Your task to perform on an android device: open a bookmark in the chrome app Image 0: 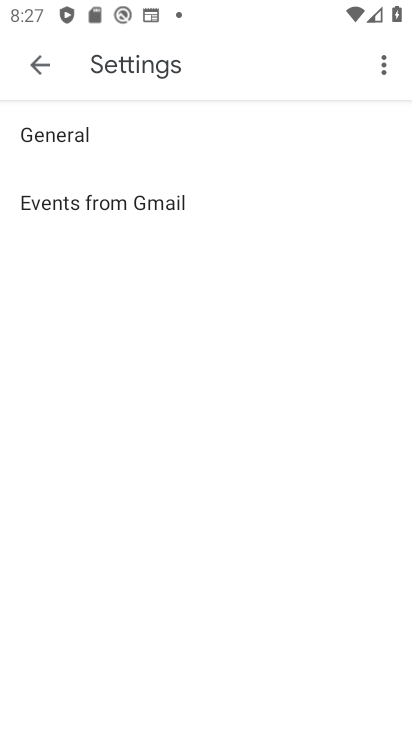
Step 0: press home button
Your task to perform on an android device: open a bookmark in the chrome app Image 1: 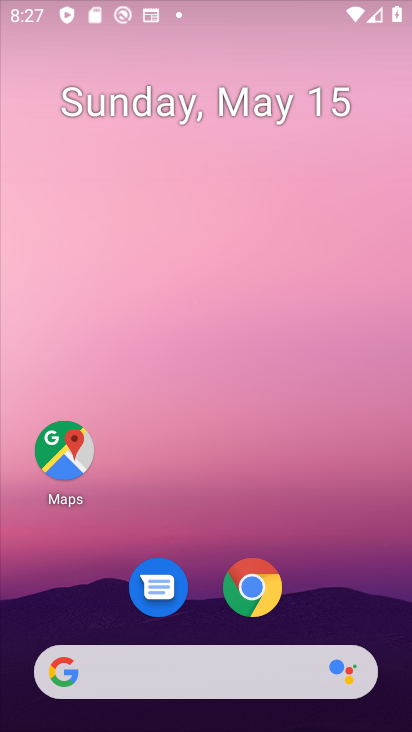
Step 1: drag from (392, 643) to (257, 11)
Your task to perform on an android device: open a bookmark in the chrome app Image 2: 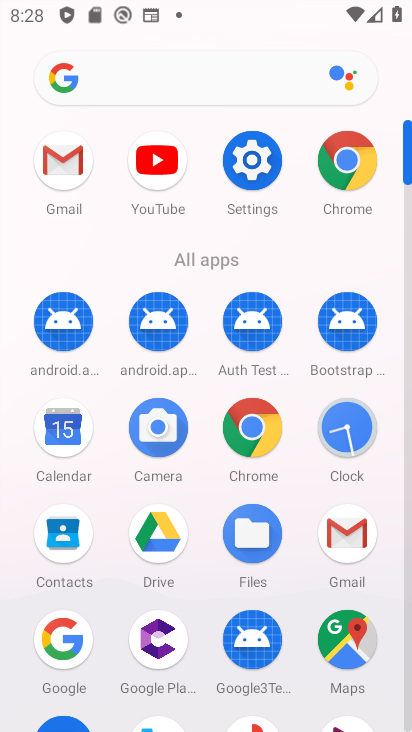
Step 2: click (349, 167)
Your task to perform on an android device: open a bookmark in the chrome app Image 3: 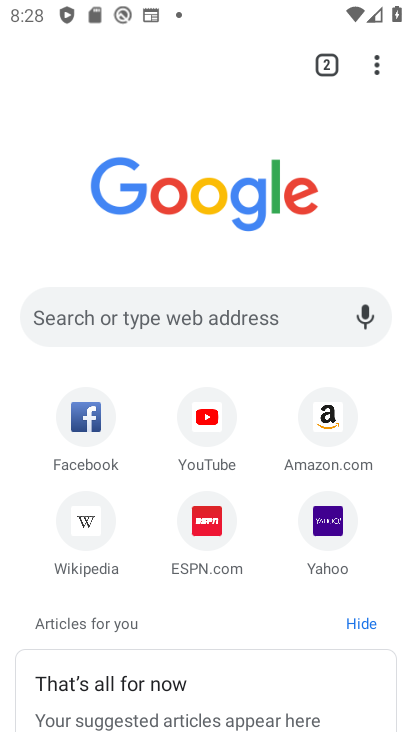
Step 3: click (375, 60)
Your task to perform on an android device: open a bookmark in the chrome app Image 4: 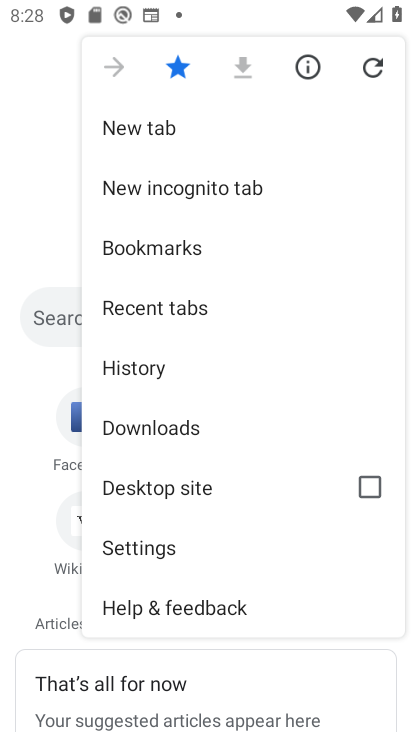
Step 4: click (210, 250)
Your task to perform on an android device: open a bookmark in the chrome app Image 5: 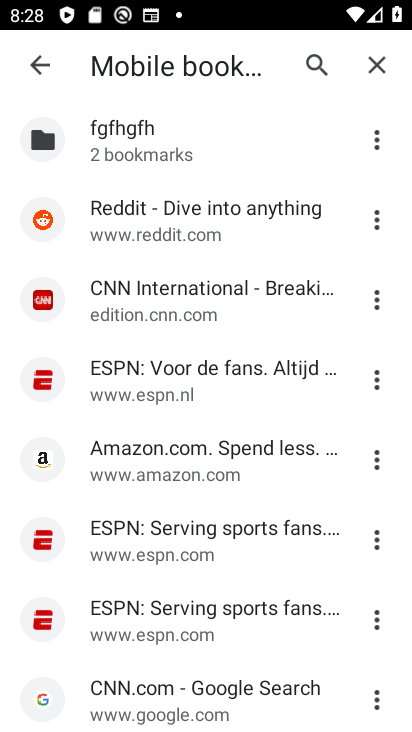
Step 5: task complete